Your task to perform on an android device: open app "Google Keep" Image 0: 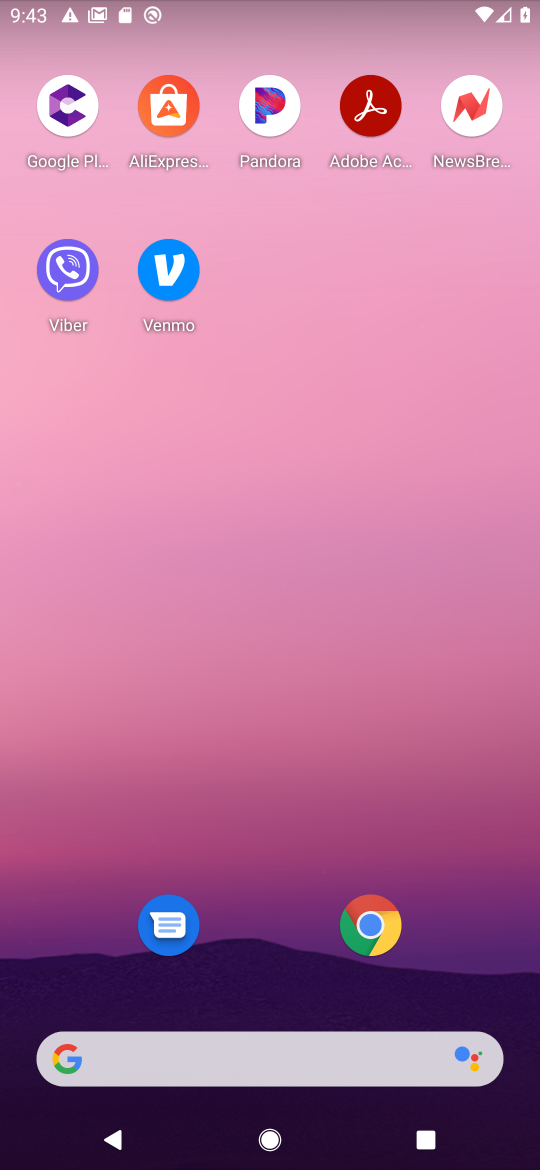
Step 0: drag from (270, 605) to (251, 147)
Your task to perform on an android device: open app "Google Keep" Image 1: 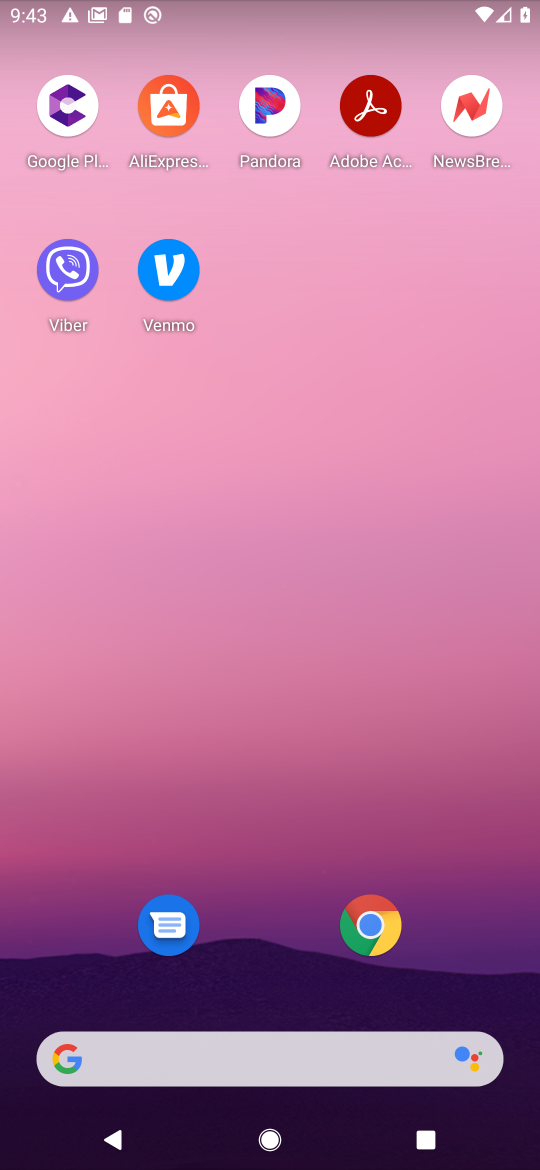
Step 1: drag from (231, 890) to (115, 203)
Your task to perform on an android device: open app "Google Keep" Image 2: 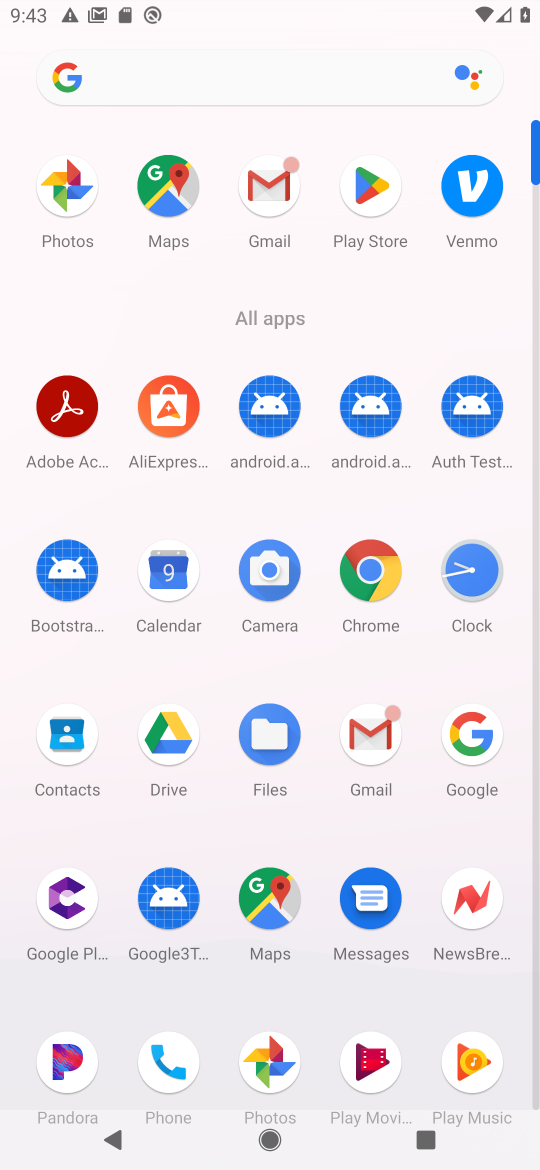
Step 2: click (373, 189)
Your task to perform on an android device: open app "Google Keep" Image 3: 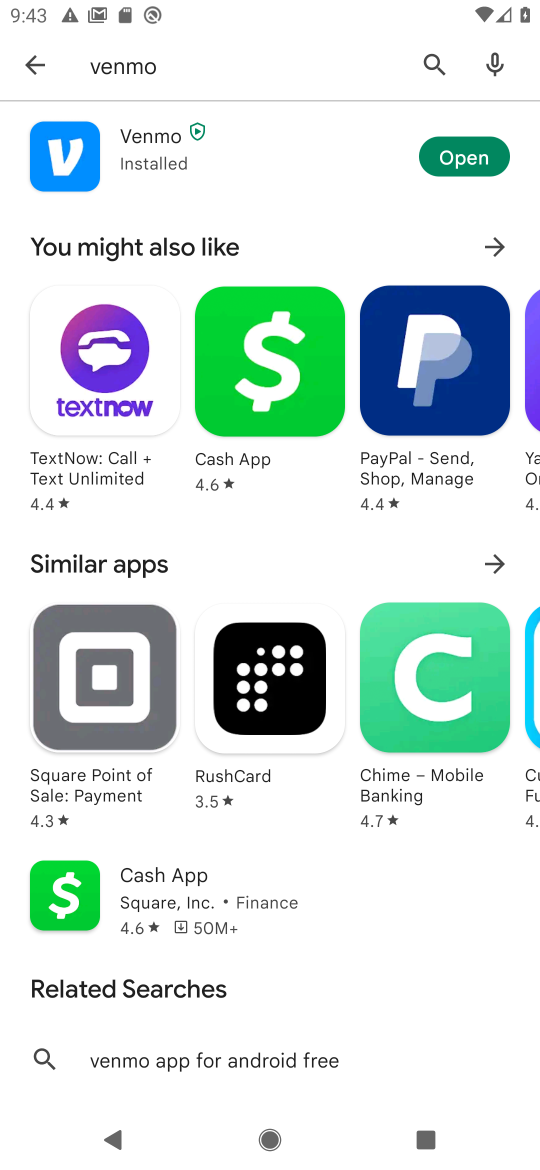
Step 3: click (25, 63)
Your task to perform on an android device: open app "Google Keep" Image 4: 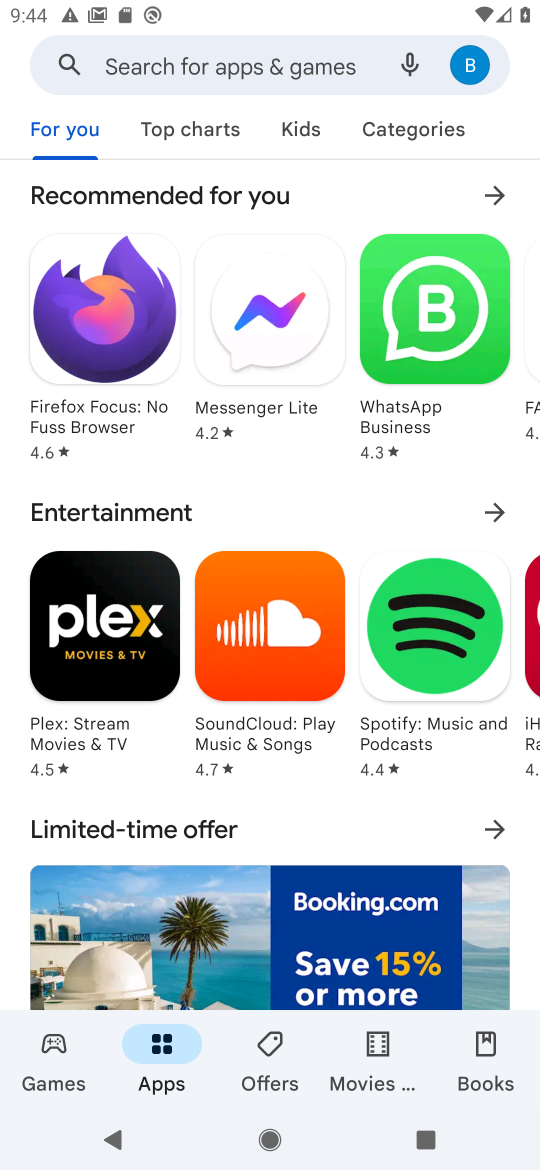
Step 4: click (207, 66)
Your task to perform on an android device: open app "Google Keep" Image 5: 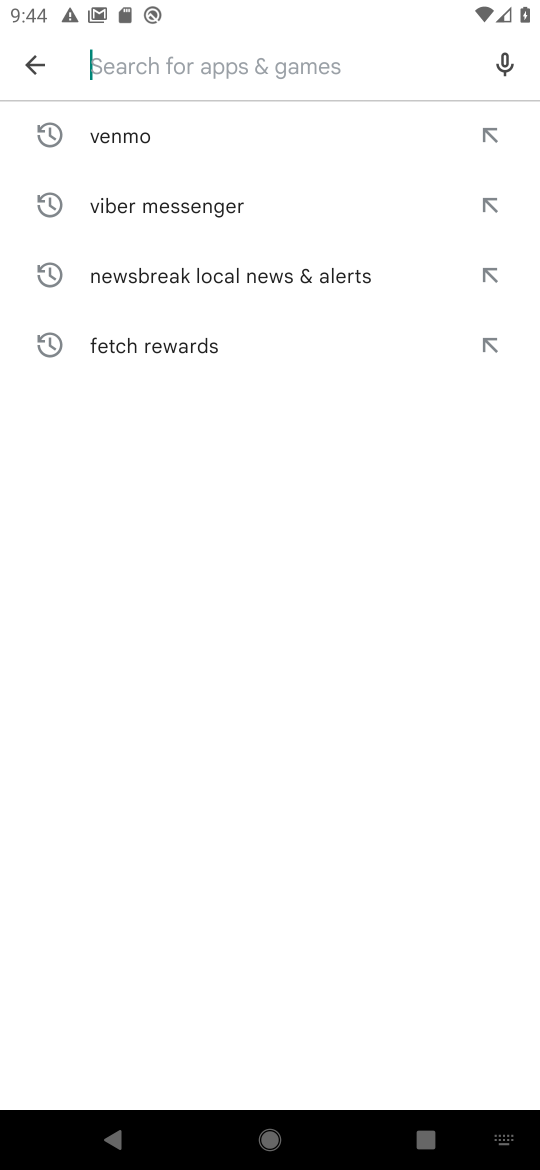
Step 5: type "Google Keep"
Your task to perform on an android device: open app "Google Keep" Image 6: 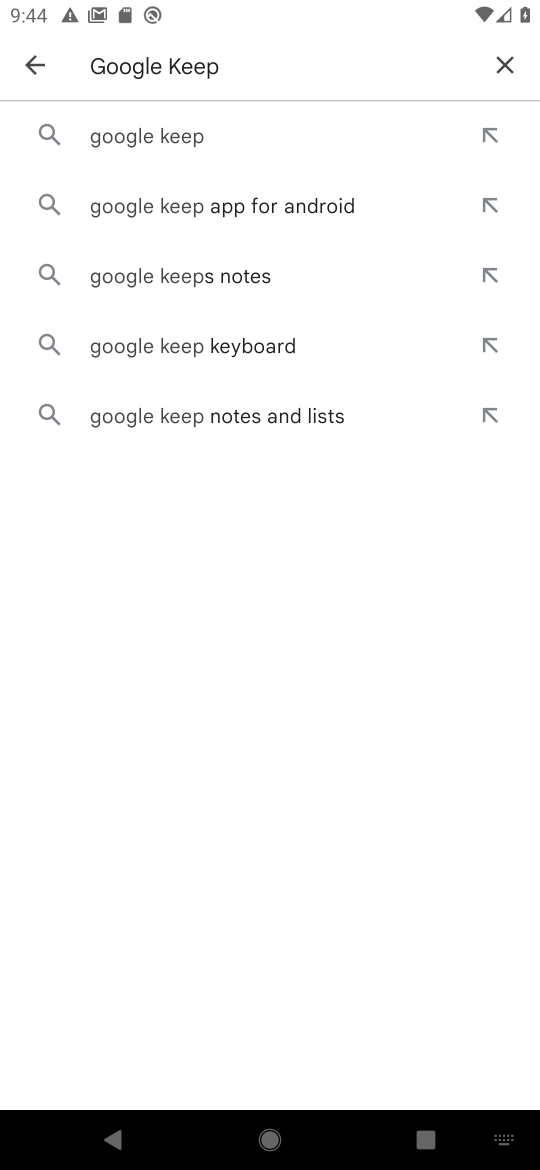
Step 6: click (190, 128)
Your task to perform on an android device: open app "Google Keep" Image 7: 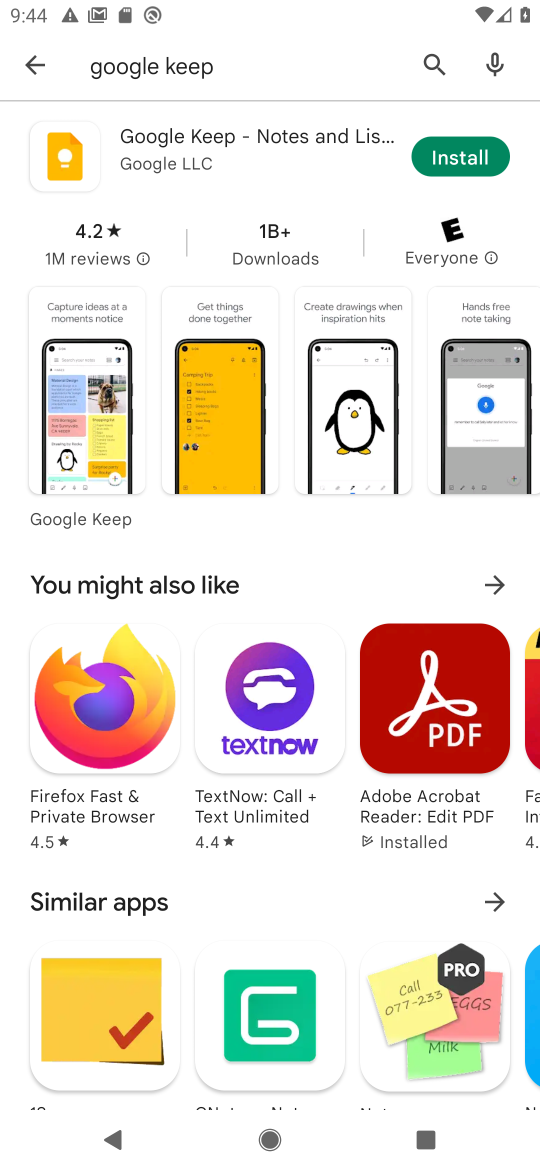
Step 7: click (460, 152)
Your task to perform on an android device: open app "Google Keep" Image 8: 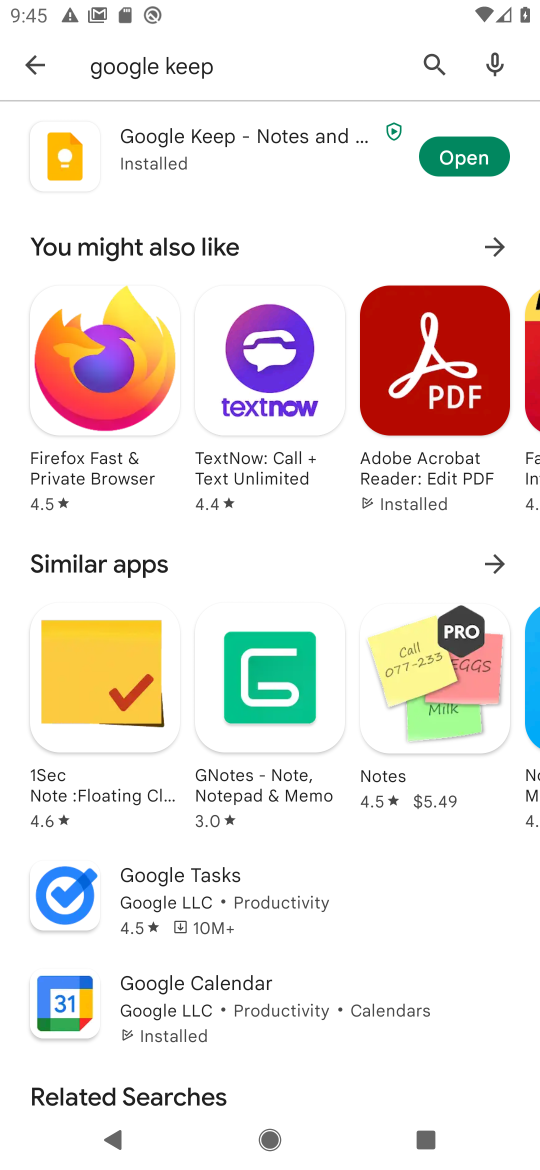
Step 8: click (460, 152)
Your task to perform on an android device: open app "Google Keep" Image 9: 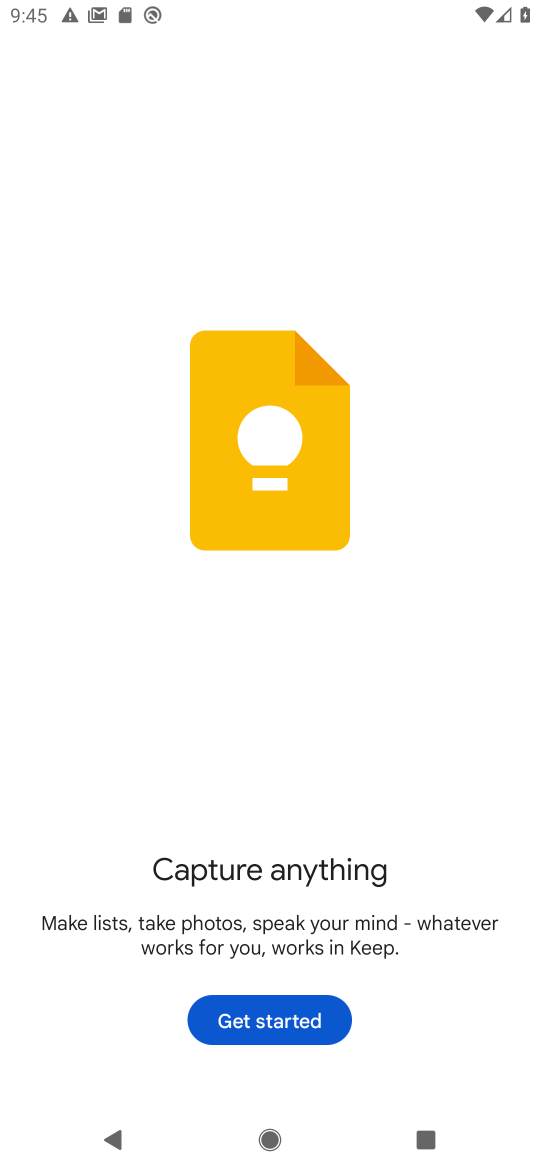
Step 9: click (271, 1029)
Your task to perform on an android device: open app "Google Keep" Image 10: 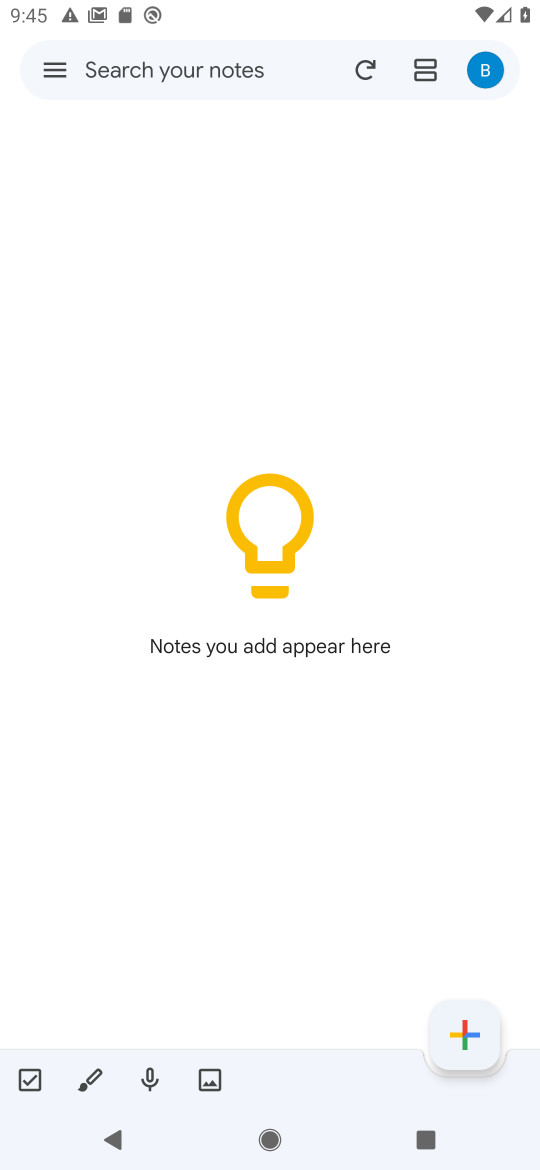
Step 10: task complete